Your task to perform on an android device: Open ESPN.com Image 0: 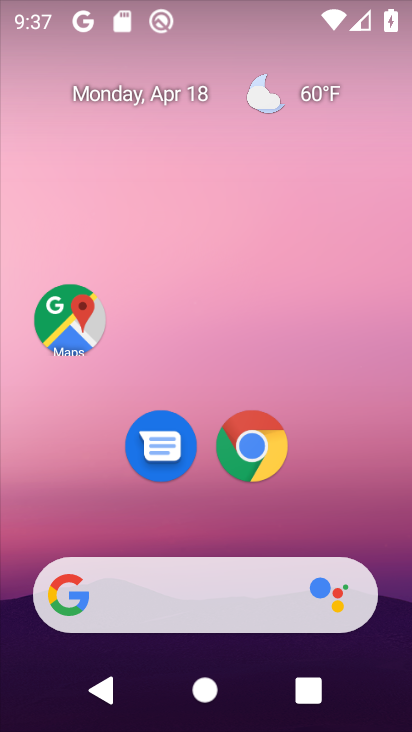
Step 0: drag from (367, 510) to (363, 93)
Your task to perform on an android device: Open ESPN.com Image 1: 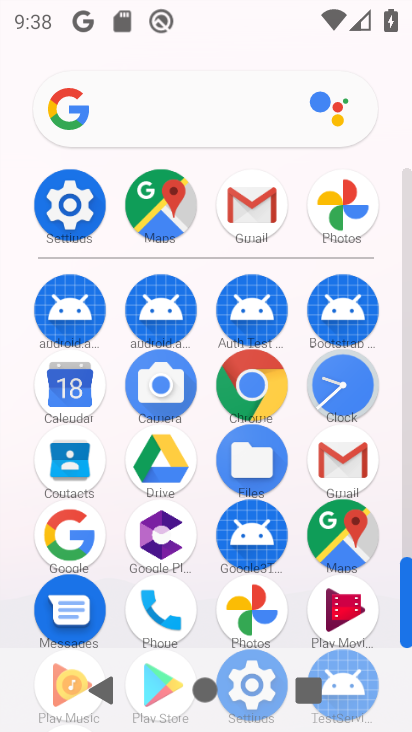
Step 1: click (251, 392)
Your task to perform on an android device: Open ESPN.com Image 2: 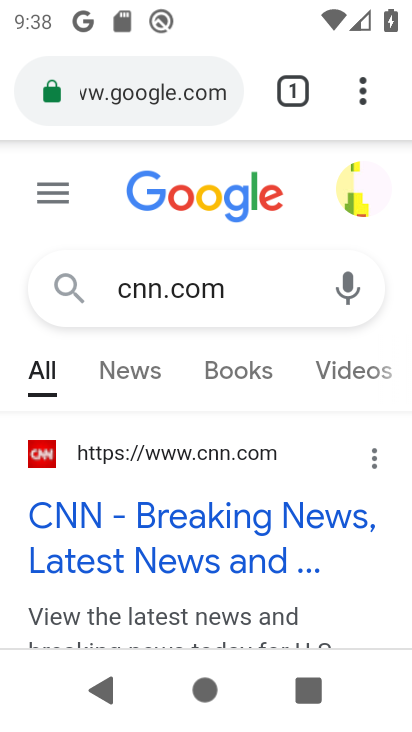
Step 2: click (243, 293)
Your task to perform on an android device: Open ESPN.com Image 3: 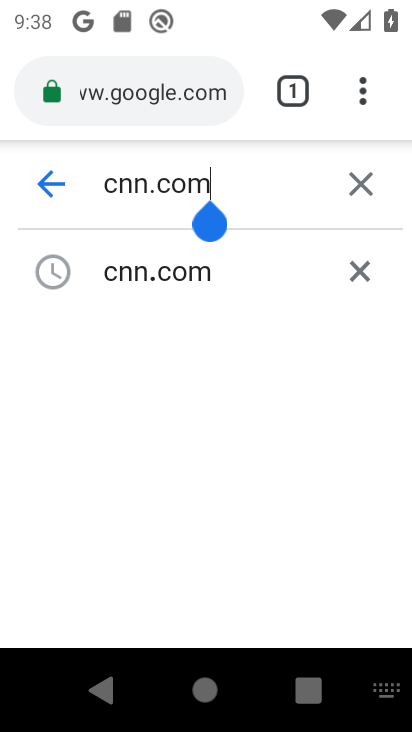
Step 3: click (364, 186)
Your task to perform on an android device: Open ESPN.com Image 4: 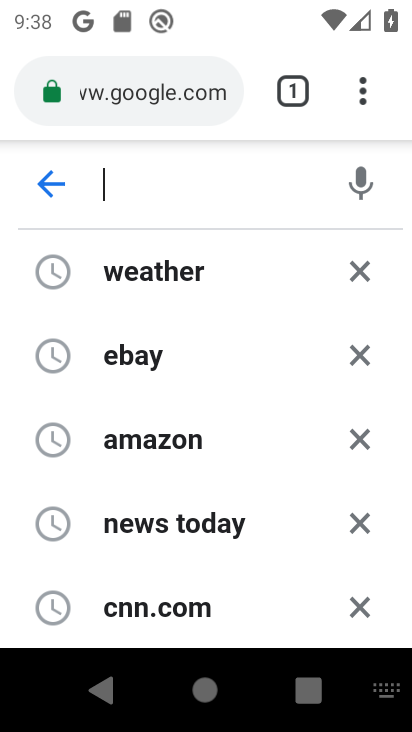
Step 4: type "espn.com"
Your task to perform on an android device: Open ESPN.com Image 5: 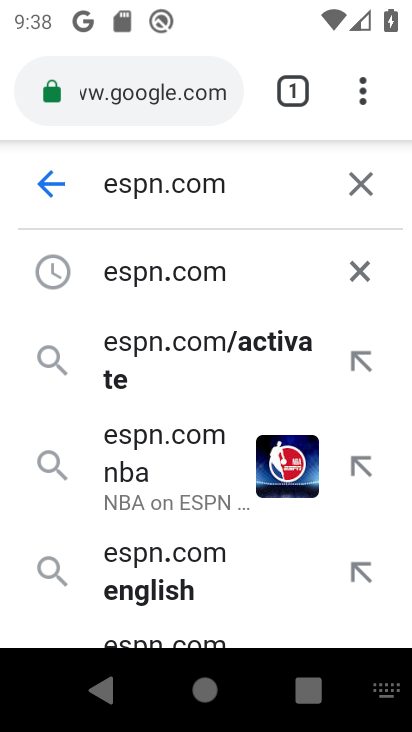
Step 5: click (212, 281)
Your task to perform on an android device: Open ESPN.com Image 6: 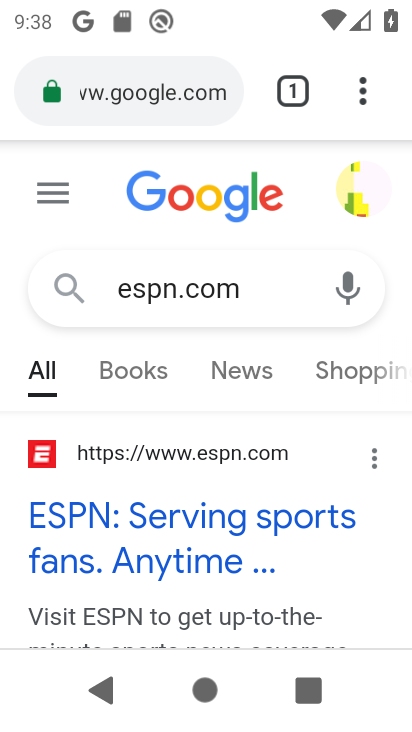
Step 6: click (187, 524)
Your task to perform on an android device: Open ESPN.com Image 7: 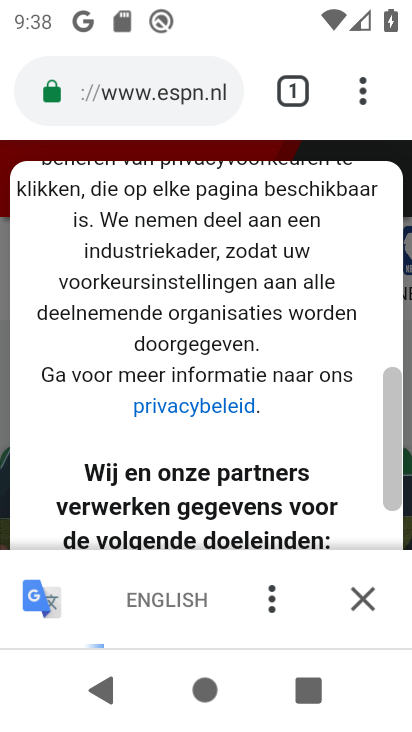
Step 7: task complete